Your task to perform on an android device: Set the phone to "Do not disturb". Image 0: 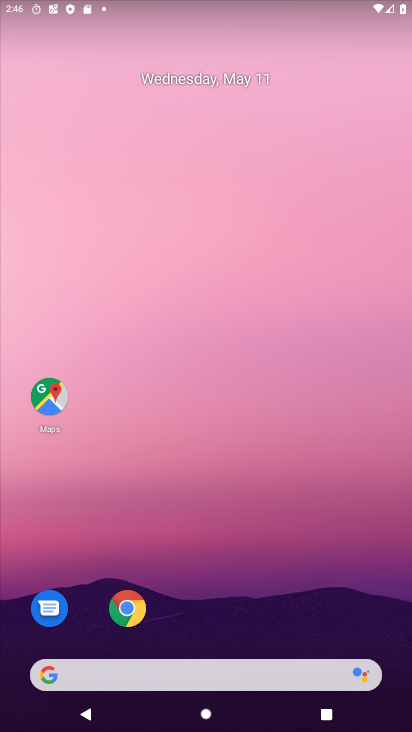
Step 0: drag from (300, 595) to (331, 341)
Your task to perform on an android device: Set the phone to "Do not disturb". Image 1: 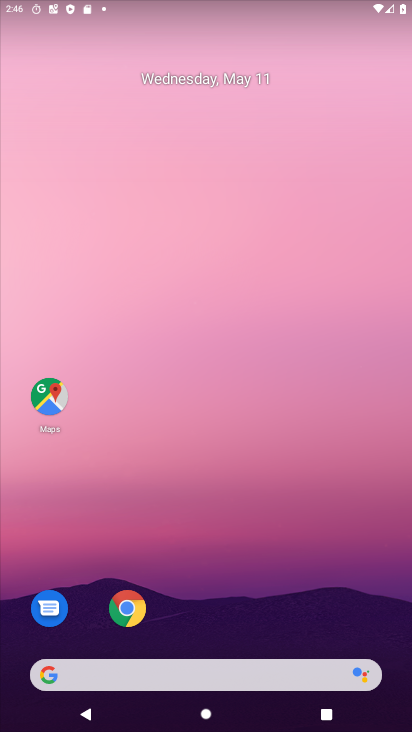
Step 1: drag from (275, 723) to (312, 276)
Your task to perform on an android device: Set the phone to "Do not disturb". Image 2: 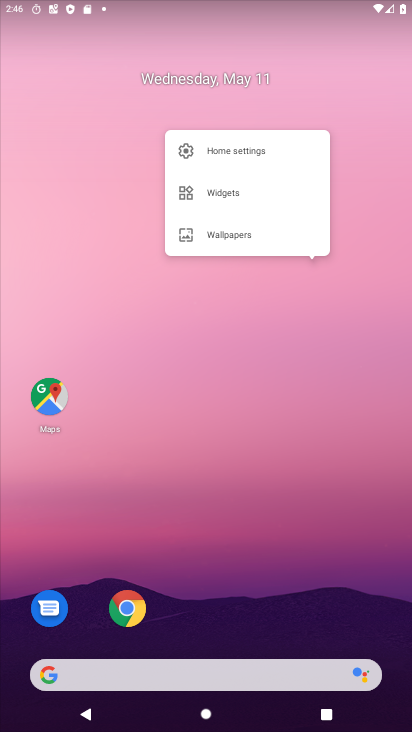
Step 2: drag from (247, 704) to (410, 117)
Your task to perform on an android device: Set the phone to "Do not disturb". Image 3: 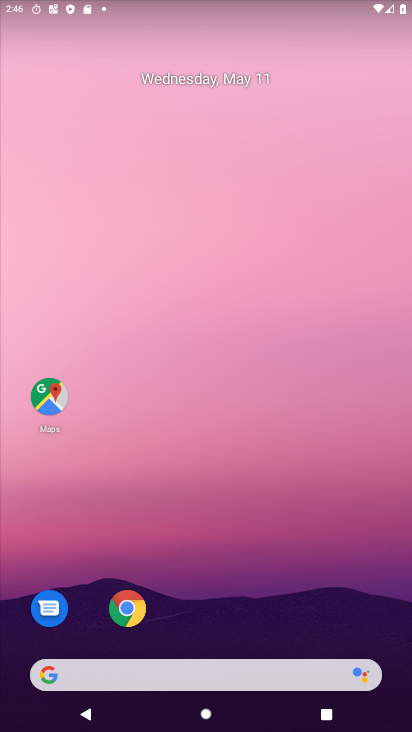
Step 3: drag from (266, 605) to (261, 203)
Your task to perform on an android device: Set the phone to "Do not disturb". Image 4: 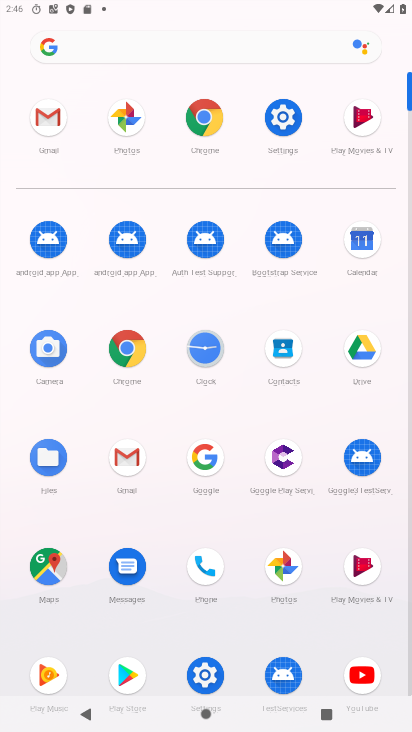
Step 4: click (285, 128)
Your task to perform on an android device: Set the phone to "Do not disturb". Image 5: 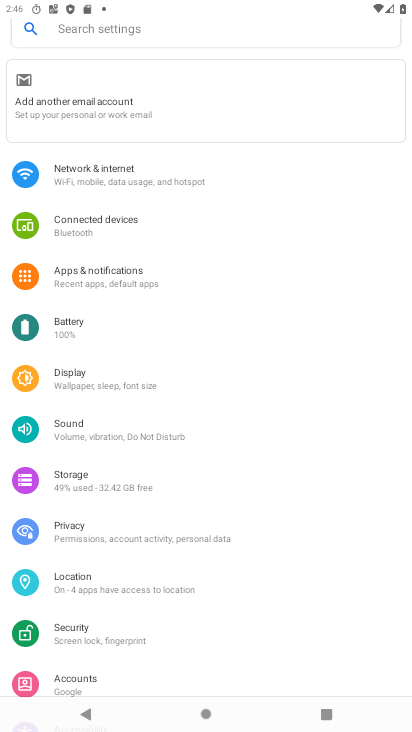
Step 5: drag from (244, 700) to (253, 358)
Your task to perform on an android device: Set the phone to "Do not disturb". Image 6: 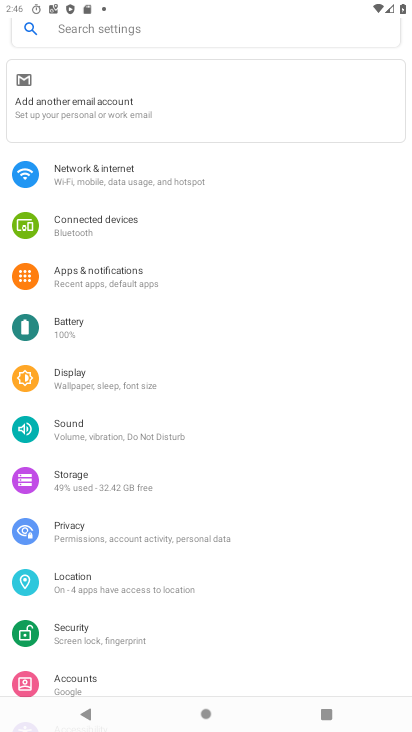
Step 6: click (120, 377)
Your task to perform on an android device: Set the phone to "Do not disturb". Image 7: 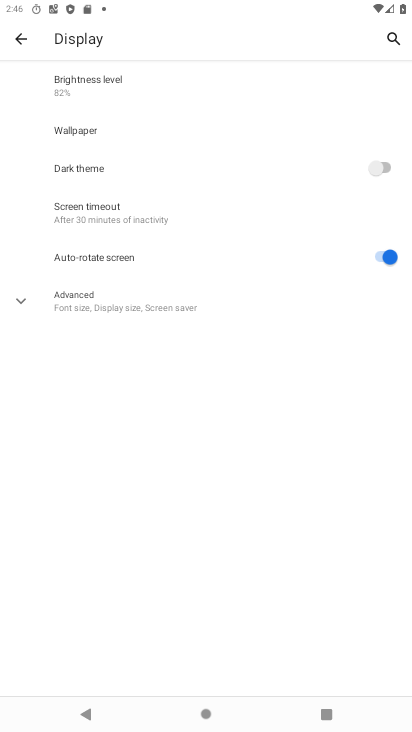
Step 7: click (37, 47)
Your task to perform on an android device: Set the phone to "Do not disturb". Image 8: 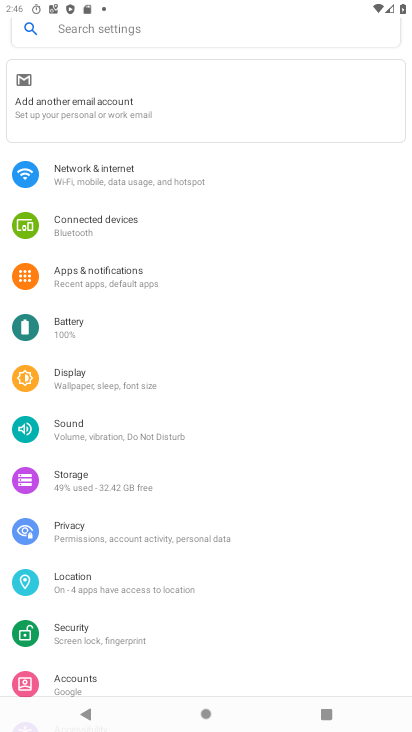
Step 8: click (68, 419)
Your task to perform on an android device: Set the phone to "Do not disturb". Image 9: 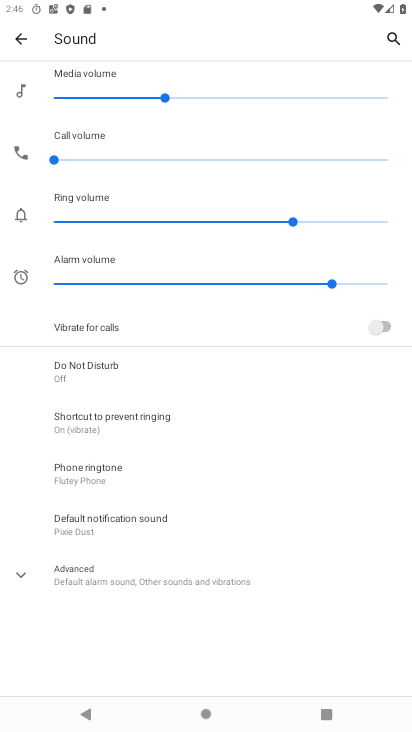
Step 9: click (128, 385)
Your task to perform on an android device: Set the phone to "Do not disturb". Image 10: 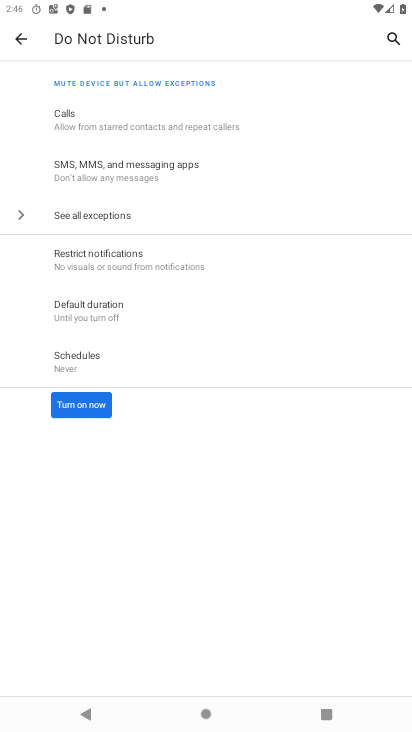
Step 10: click (90, 401)
Your task to perform on an android device: Set the phone to "Do not disturb". Image 11: 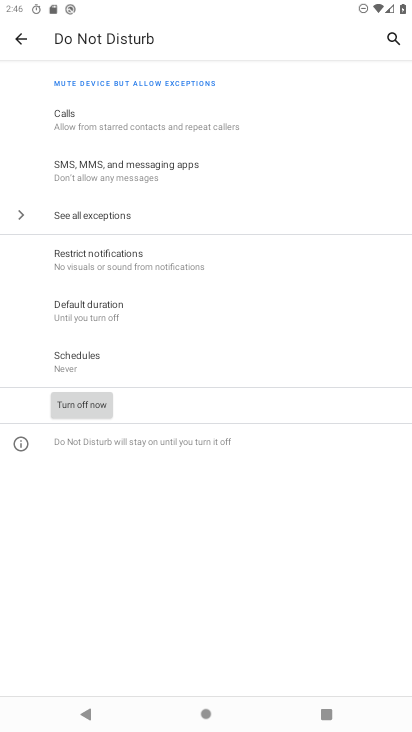
Step 11: task complete